Your task to perform on an android device: open sync settings in chrome Image 0: 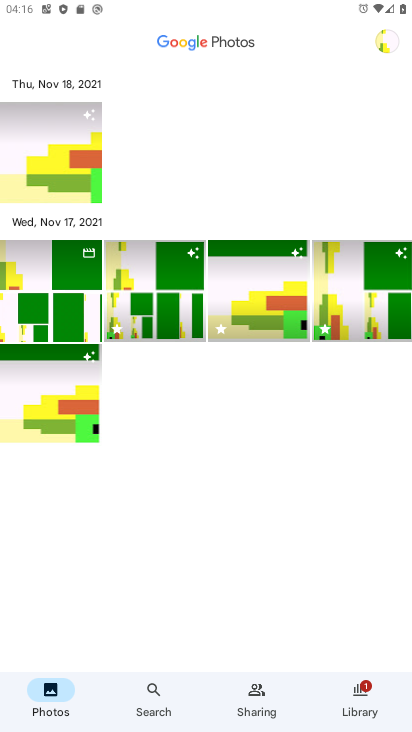
Step 0: press home button
Your task to perform on an android device: open sync settings in chrome Image 1: 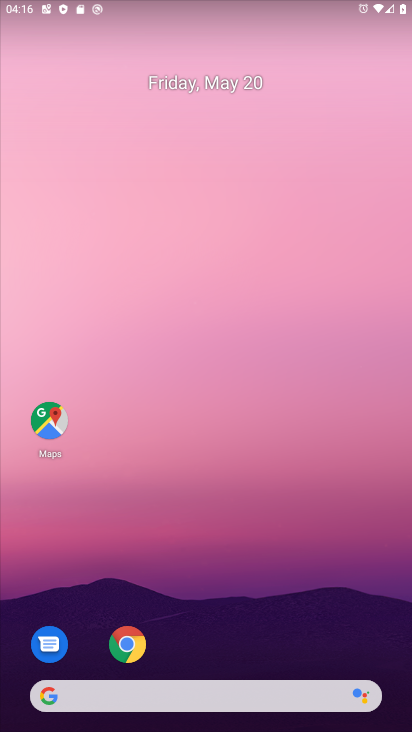
Step 1: drag from (290, 623) to (187, 71)
Your task to perform on an android device: open sync settings in chrome Image 2: 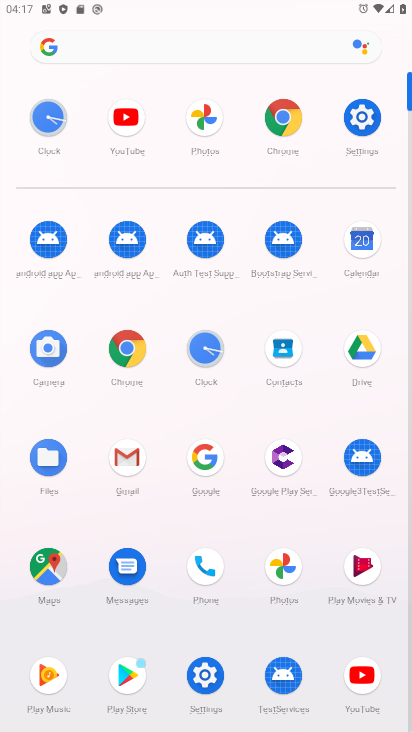
Step 2: click (278, 107)
Your task to perform on an android device: open sync settings in chrome Image 3: 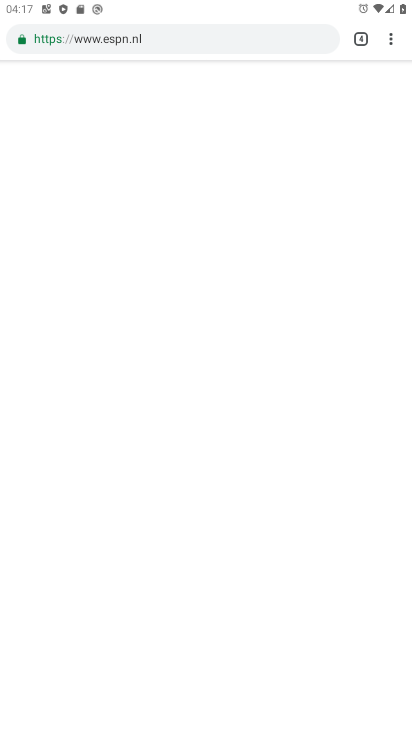
Step 3: click (396, 32)
Your task to perform on an android device: open sync settings in chrome Image 4: 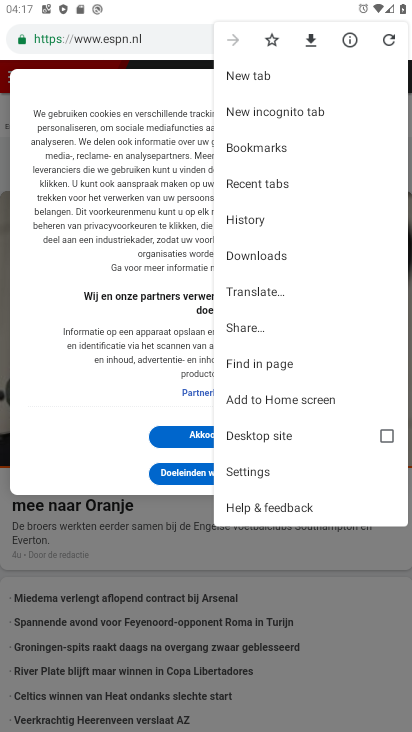
Step 4: click (289, 462)
Your task to perform on an android device: open sync settings in chrome Image 5: 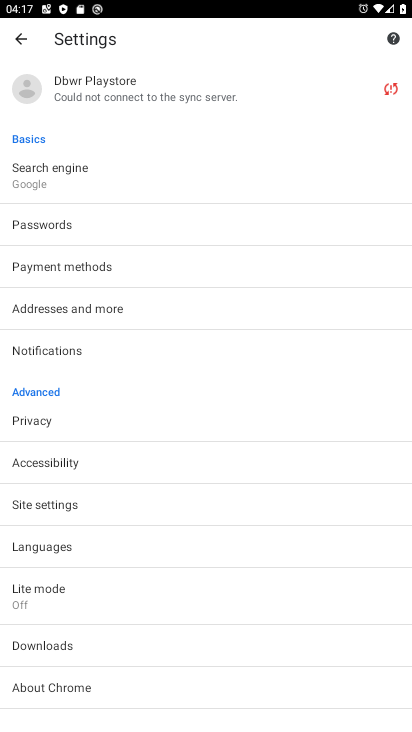
Step 5: click (117, 88)
Your task to perform on an android device: open sync settings in chrome Image 6: 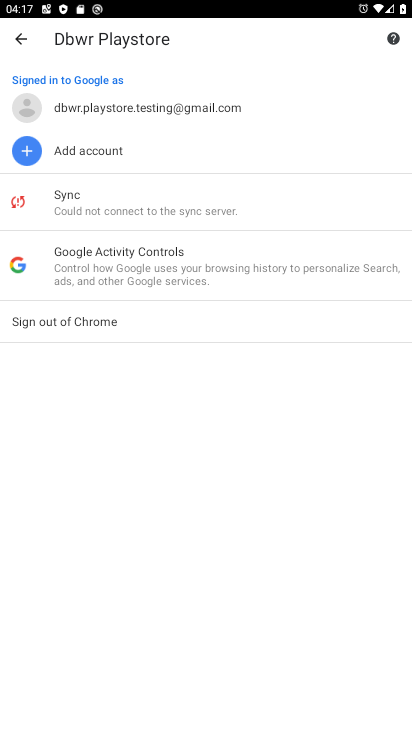
Step 6: task complete